Your task to perform on an android device: Open Chrome and go to settings Image 0: 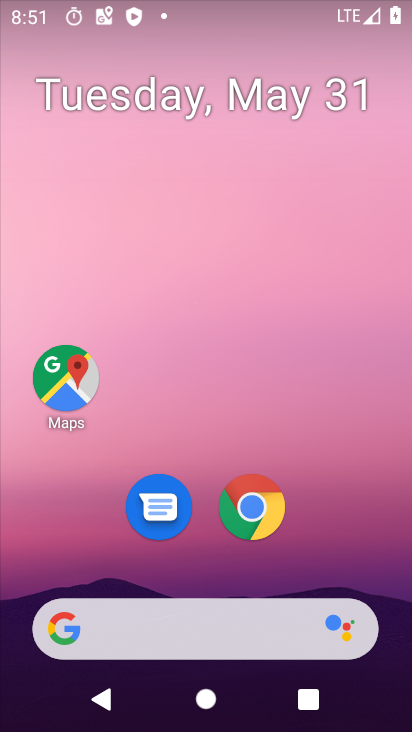
Step 0: press home button
Your task to perform on an android device: Open Chrome and go to settings Image 1: 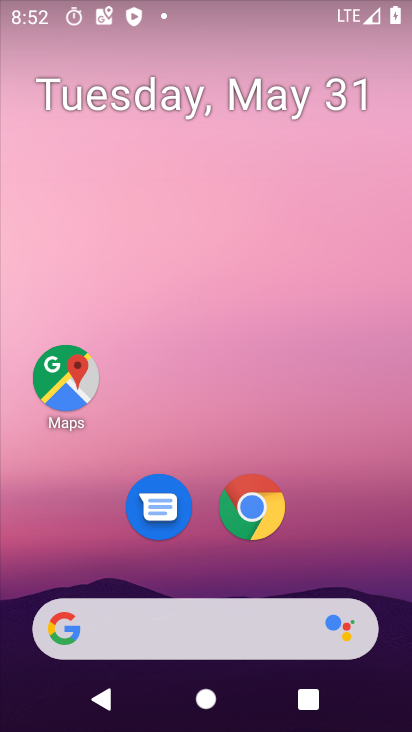
Step 1: click (245, 499)
Your task to perform on an android device: Open Chrome and go to settings Image 2: 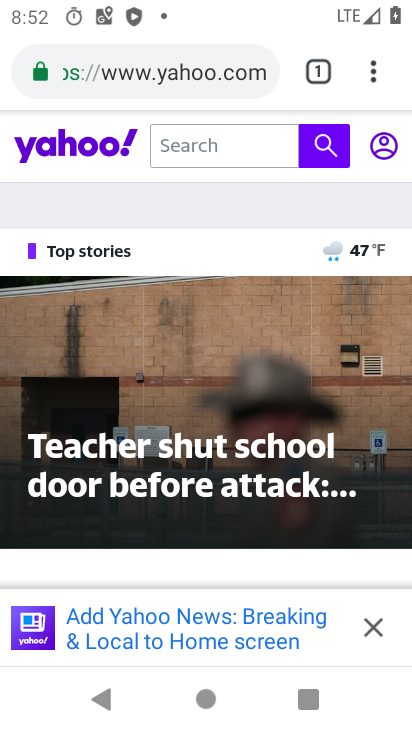
Step 2: click (371, 66)
Your task to perform on an android device: Open Chrome and go to settings Image 3: 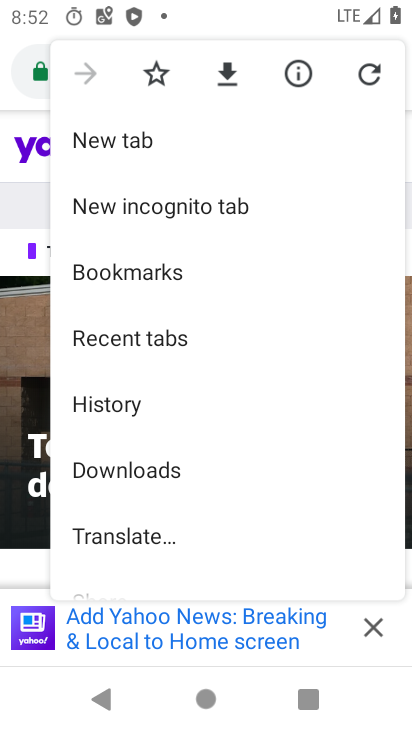
Step 3: drag from (111, 527) to (283, 120)
Your task to perform on an android device: Open Chrome and go to settings Image 4: 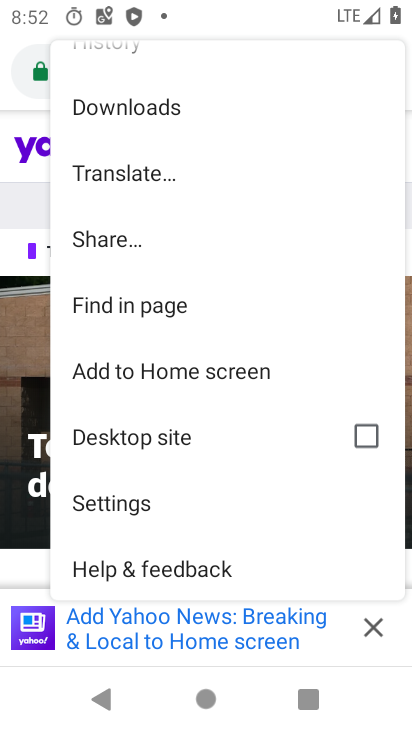
Step 4: click (108, 504)
Your task to perform on an android device: Open Chrome and go to settings Image 5: 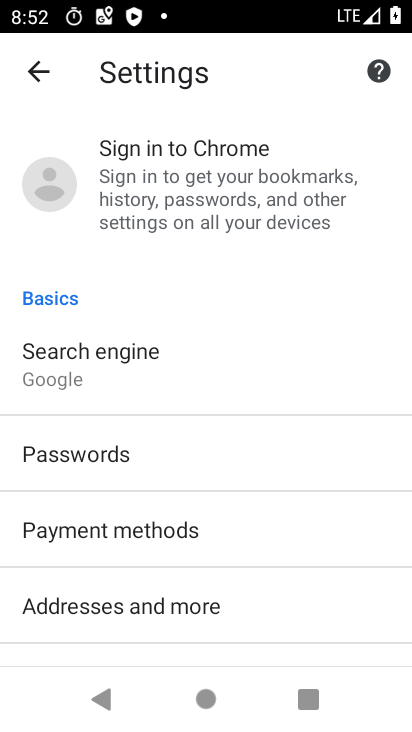
Step 5: task complete